Your task to perform on an android device: open app "LiveIn - Share Your Moment" Image 0: 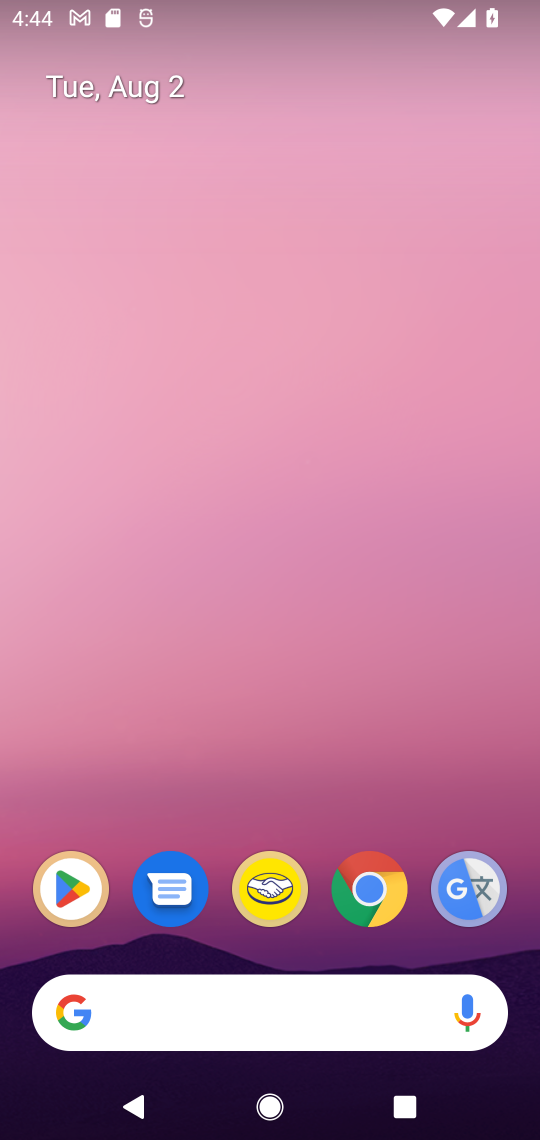
Step 0: press home button
Your task to perform on an android device: open app "LiveIn - Share Your Moment" Image 1: 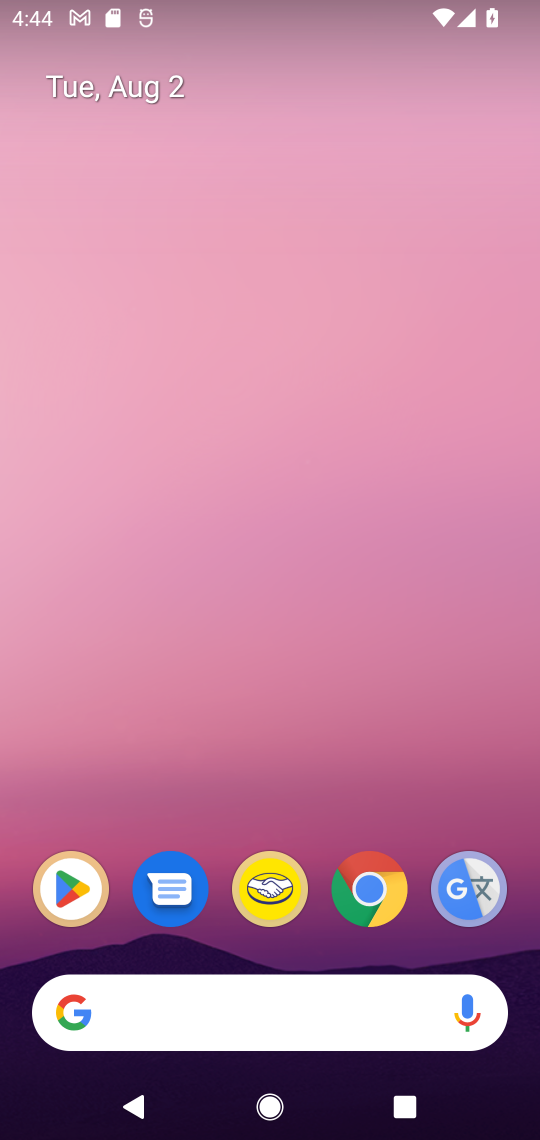
Step 1: drag from (438, 791) to (397, 91)
Your task to perform on an android device: open app "LiveIn - Share Your Moment" Image 2: 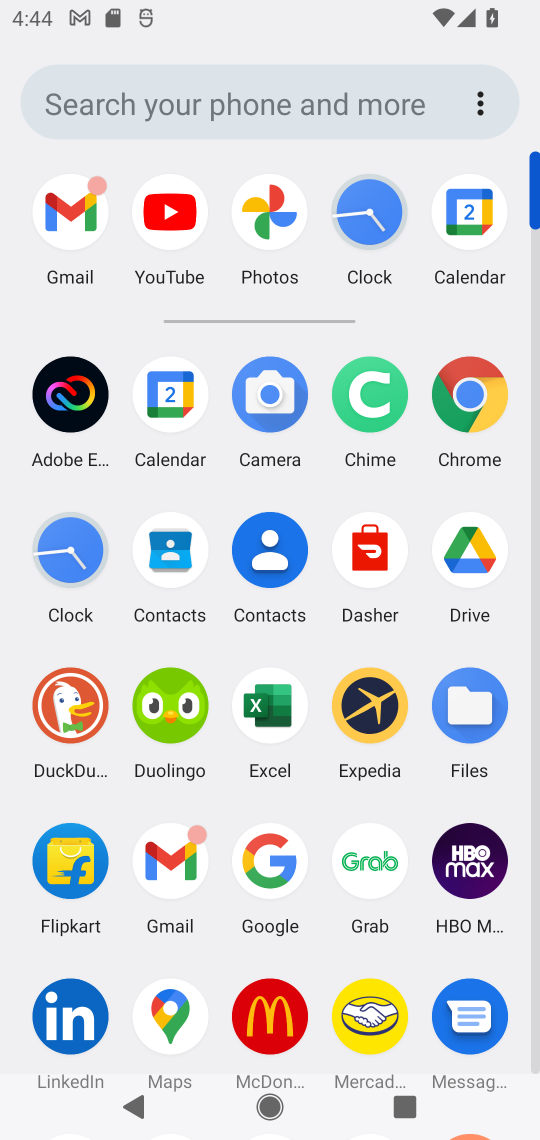
Step 2: drag from (512, 961) to (507, 426)
Your task to perform on an android device: open app "LiveIn - Share Your Moment" Image 3: 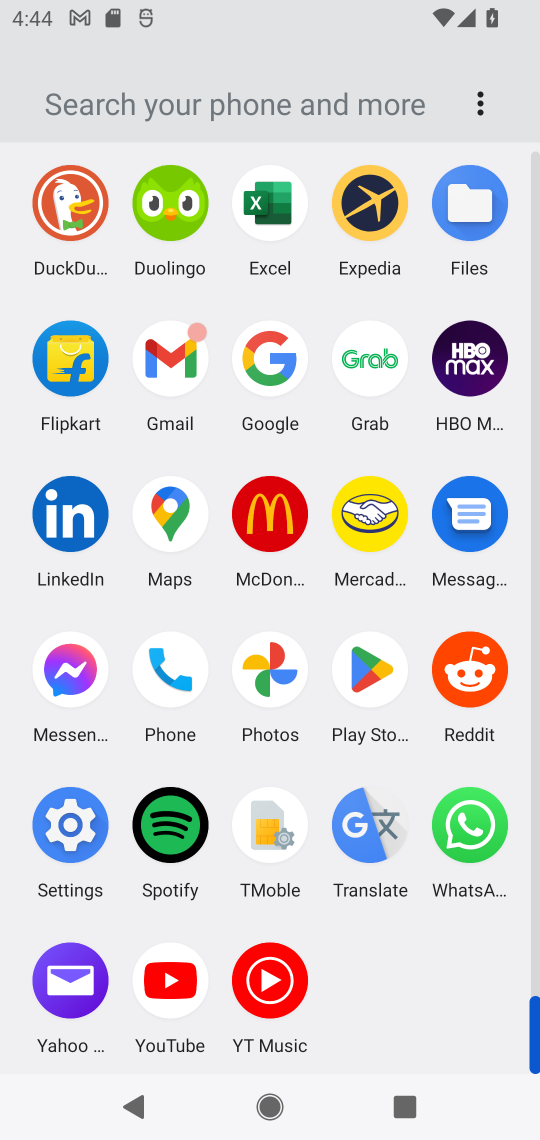
Step 3: click (374, 672)
Your task to perform on an android device: open app "LiveIn - Share Your Moment" Image 4: 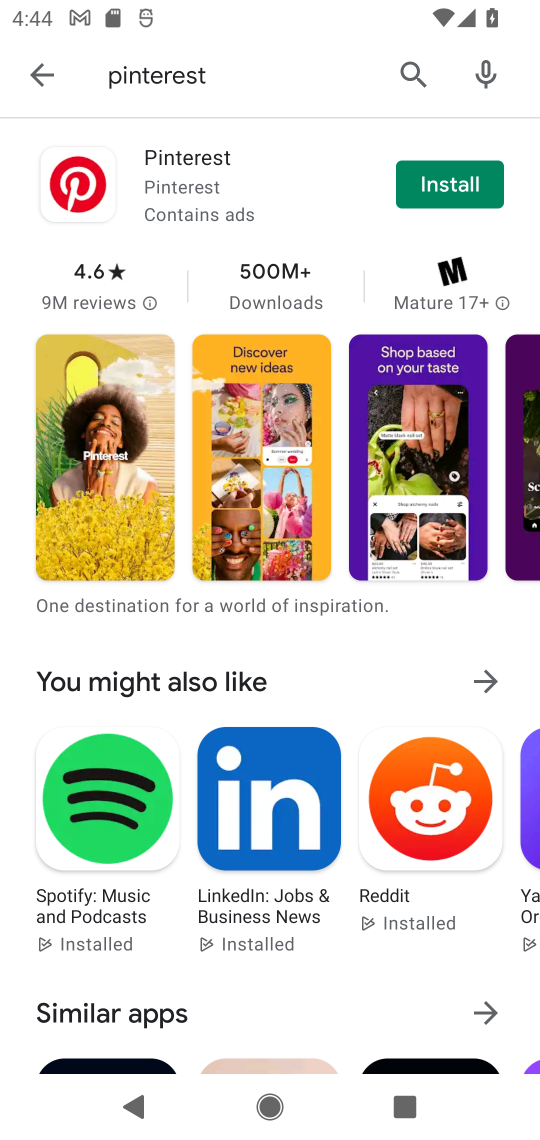
Step 4: click (416, 70)
Your task to perform on an android device: open app "LiveIn - Share Your Moment" Image 5: 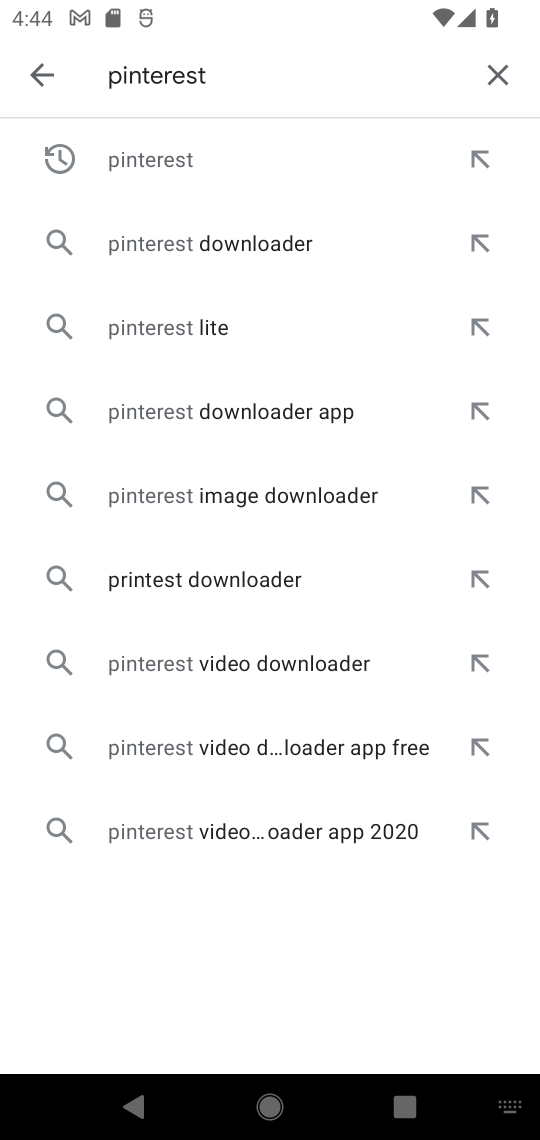
Step 5: click (495, 73)
Your task to perform on an android device: open app "LiveIn - Share Your Moment" Image 6: 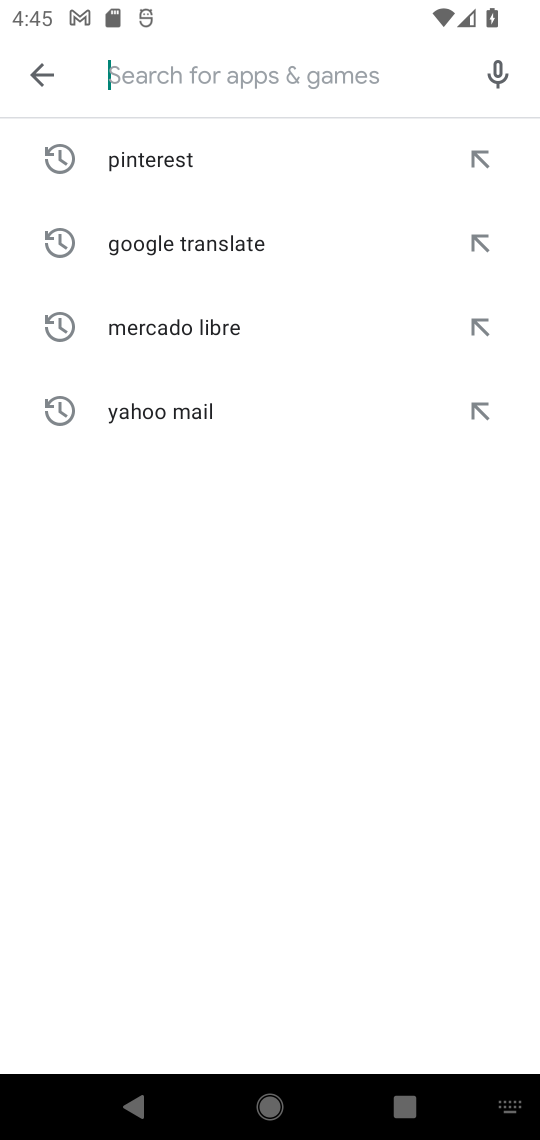
Step 6: type "livein share your moment"
Your task to perform on an android device: open app "LiveIn - Share Your Moment" Image 7: 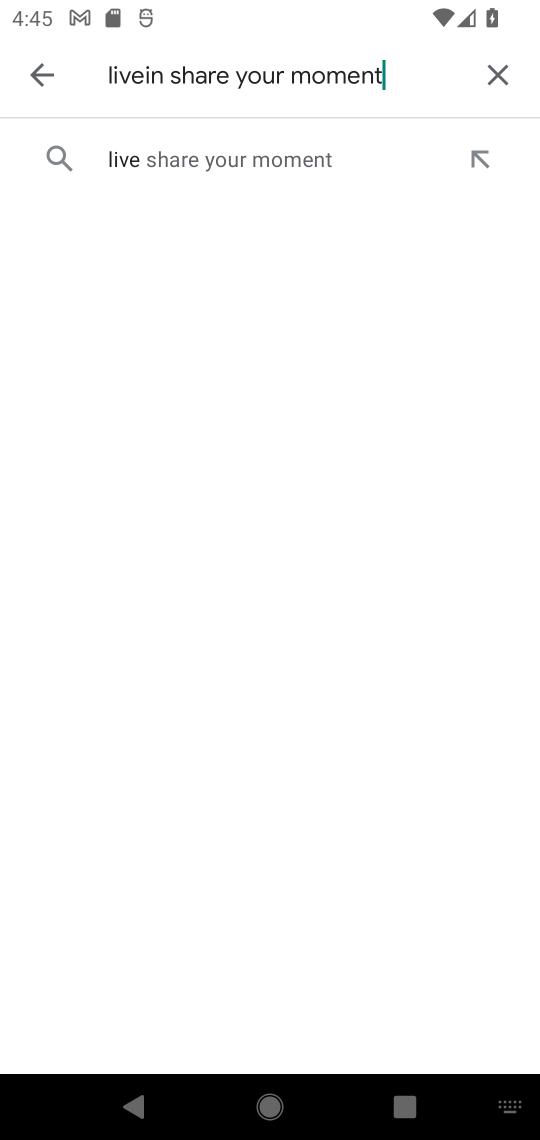
Step 7: task complete